Your task to perform on an android device: Is it going to rain this weekend? Image 0: 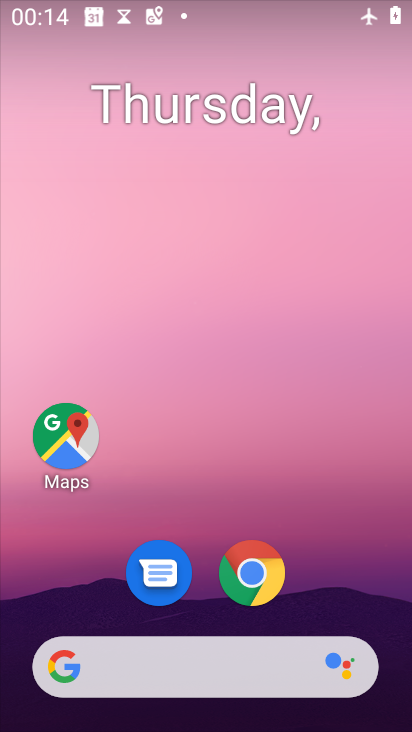
Step 0: click (251, 571)
Your task to perform on an android device: Is it going to rain this weekend? Image 1: 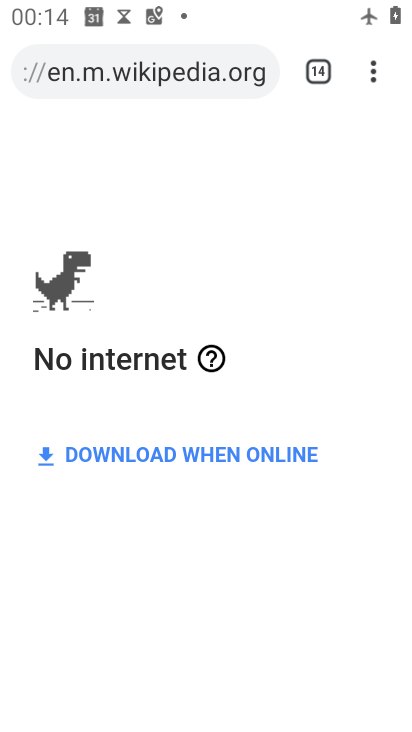
Step 1: click (368, 70)
Your task to perform on an android device: Is it going to rain this weekend? Image 2: 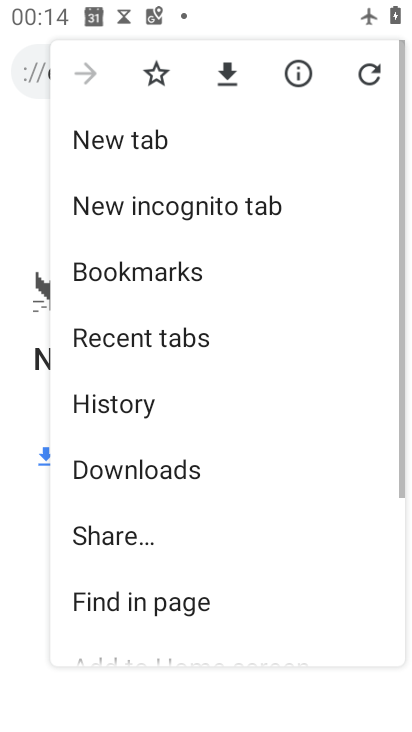
Step 2: click (166, 146)
Your task to perform on an android device: Is it going to rain this weekend? Image 3: 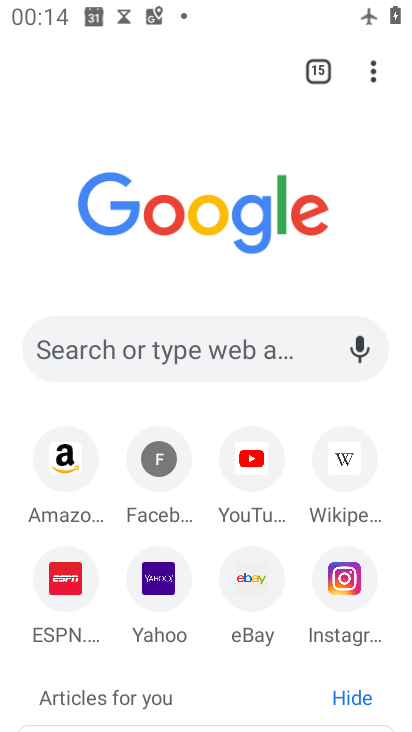
Step 3: click (177, 340)
Your task to perform on an android device: Is it going to rain this weekend? Image 4: 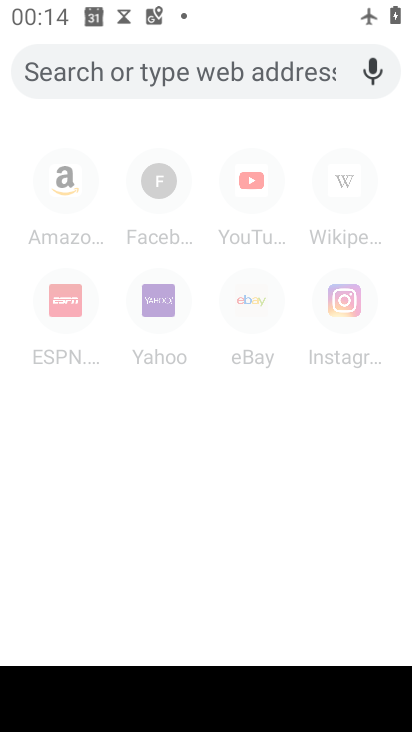
Step 4: type "Is it going to rain this weekend?"
Your task to perform on an android device: Is it going to rain this weekend? Image 5: 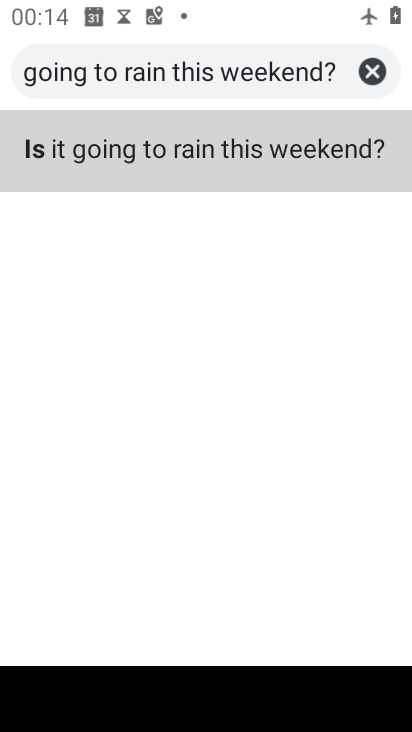
Step 5: click (281, 144)
Your task to perform on an android device: Is it going to rain this weekend? Image 6: 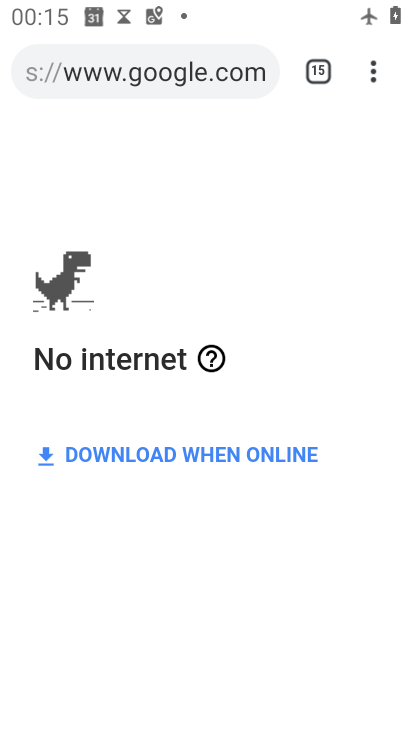
Step 6: task complete